Your task to perform on an android device: open app "Grab" (install if not already installed) and go to login screen Image 0: 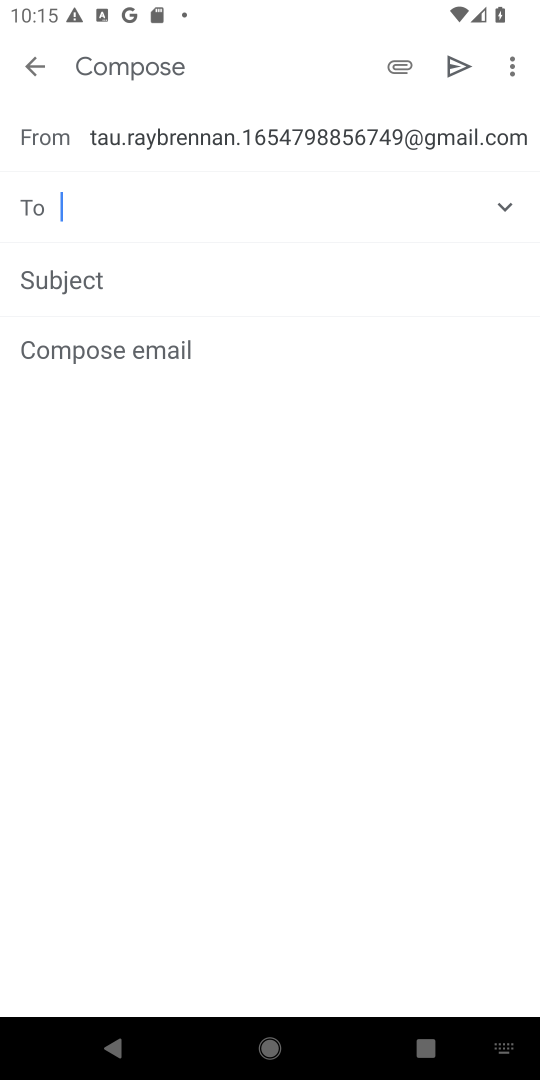
Step 0: press home button
Your task to perform on an android device: open app "Grab" (install if not already installed) and go to login screen Image 1: 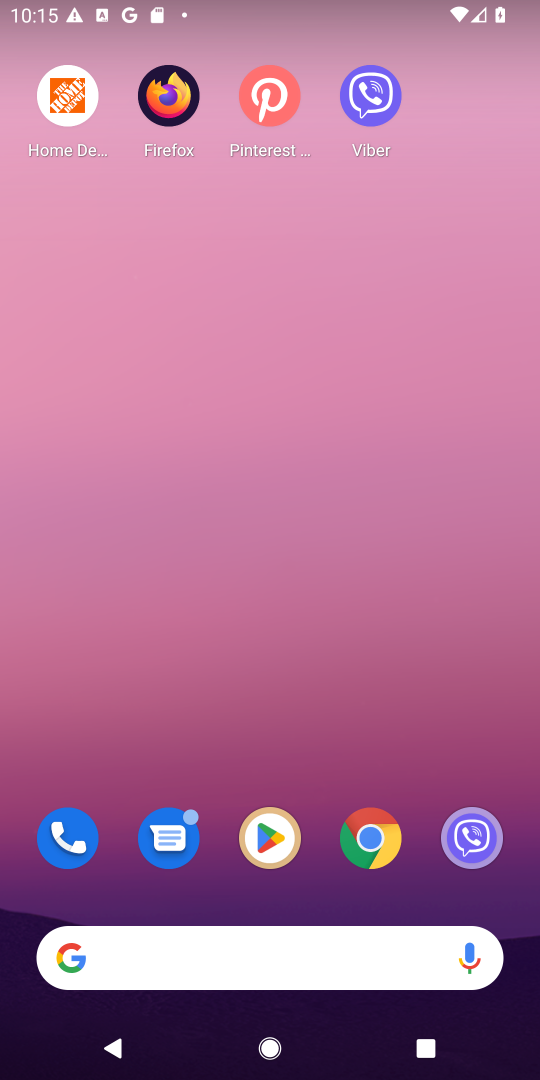
Step 1: click (254, 837)
Your task to perform on an android device: open app "Grab" (install if not already installed) and go to login screen Image 2: 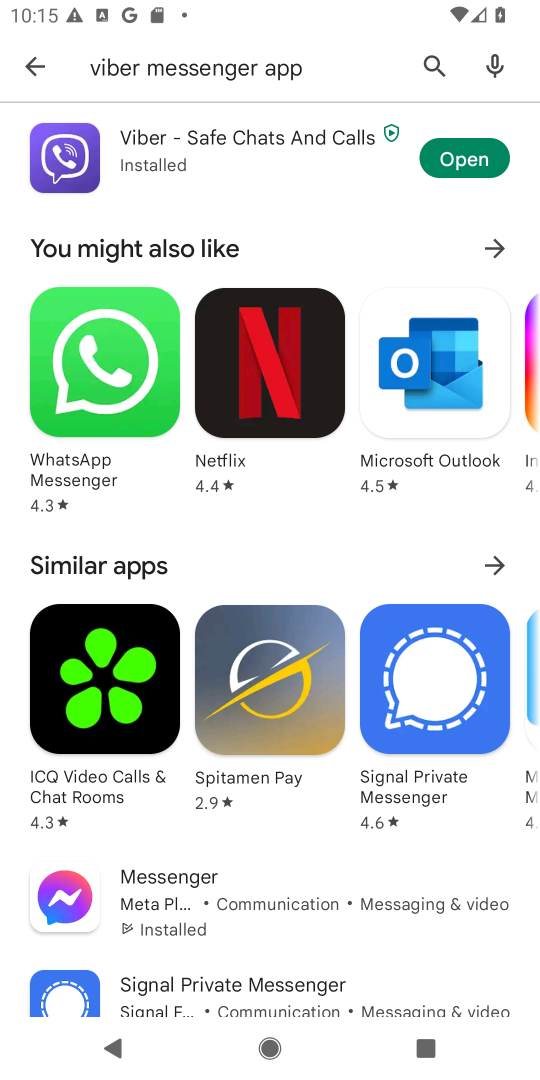
Step 2: click (438, 73)
Your task to perform on an android device: open app "Grab" (install if not already installed) and go to login screen Image 3: 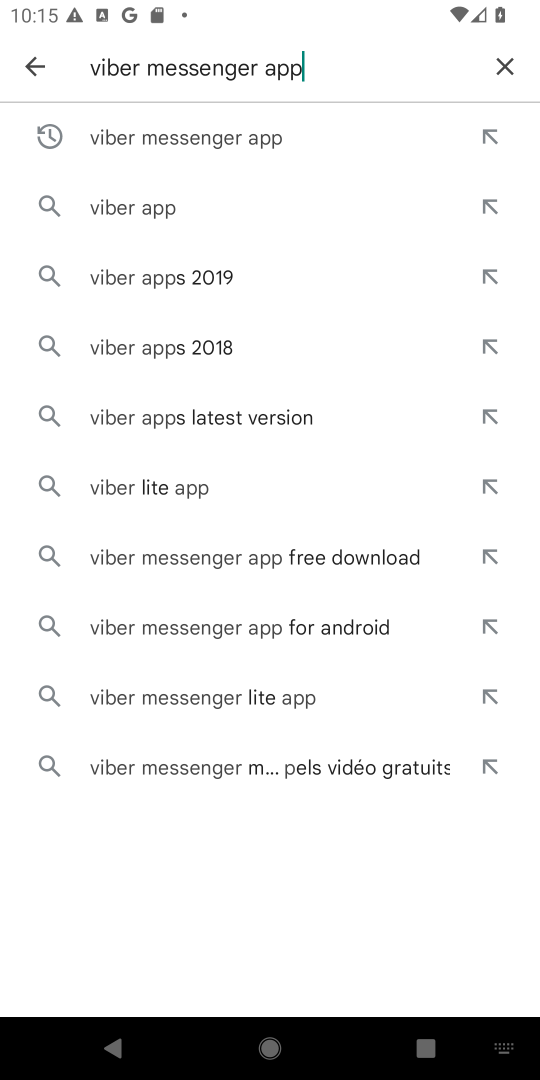
Step 3: click (502, 70)
Your task to perform on an android device: open app "Grab" (install if not already installed) and go to login screen Image 4: 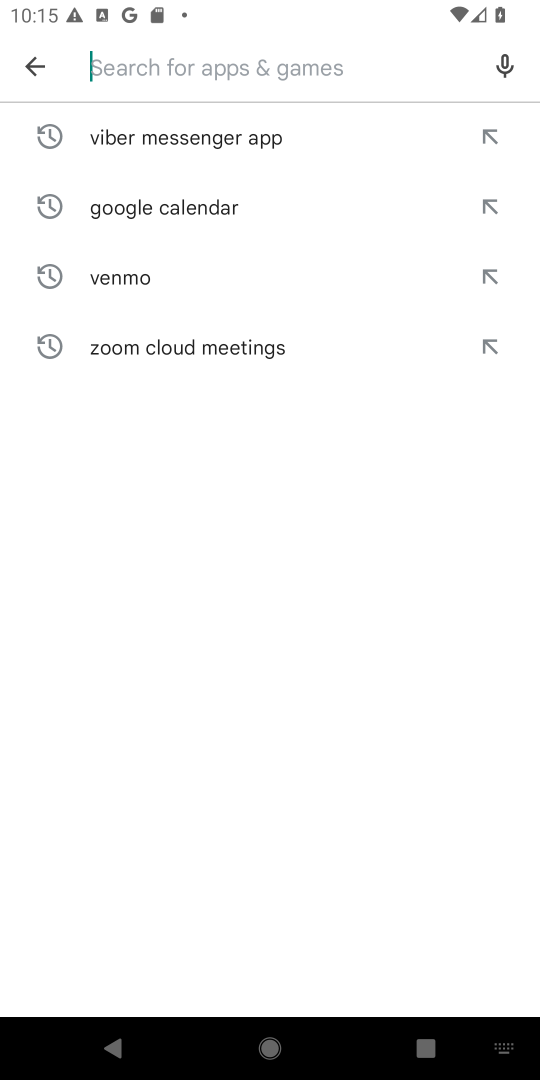
Step 4: type "Grab"
Your task to perform on an android device: open app "Grab" (install if not already installed) and go to login screen Image 5: 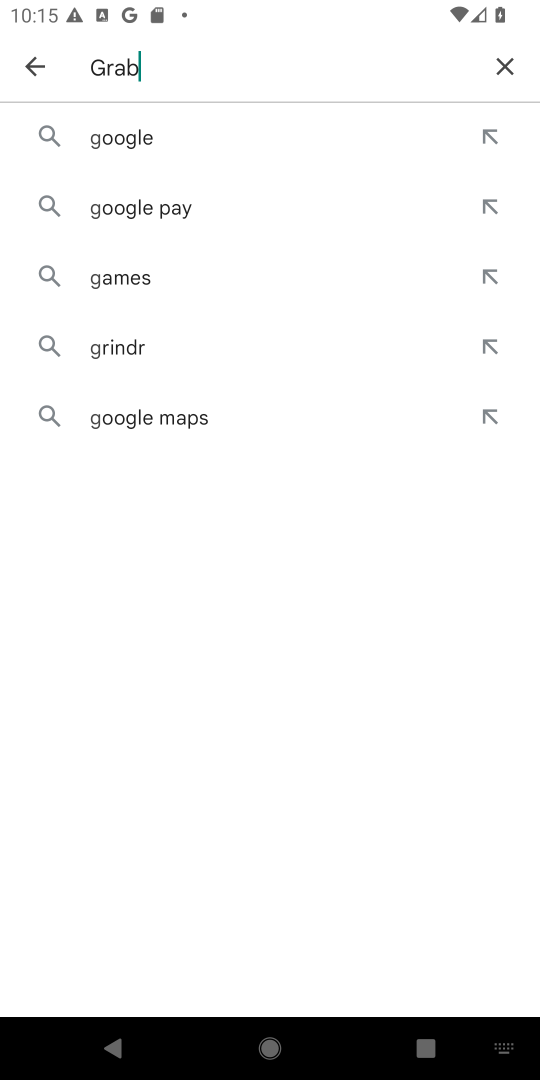
Step 5: type ""
Your task to perform on an android device: open app "Grab" (install if not already installed) and go to login screen Image 6: 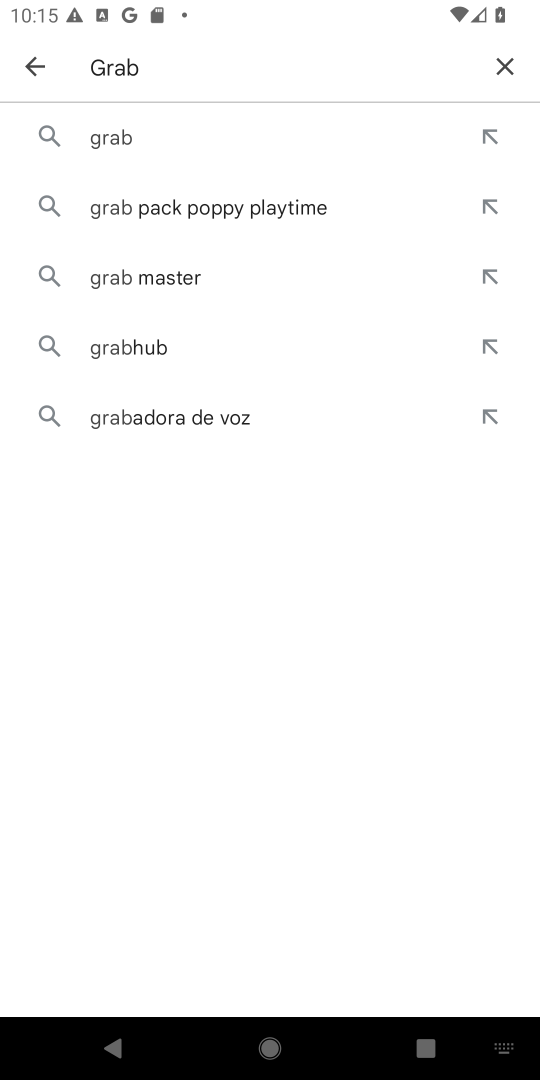
Step 6: click (121, 148)
Your task to perform on an android device: open app "Grab" (install if not already installed) and go to login screen Image 7: 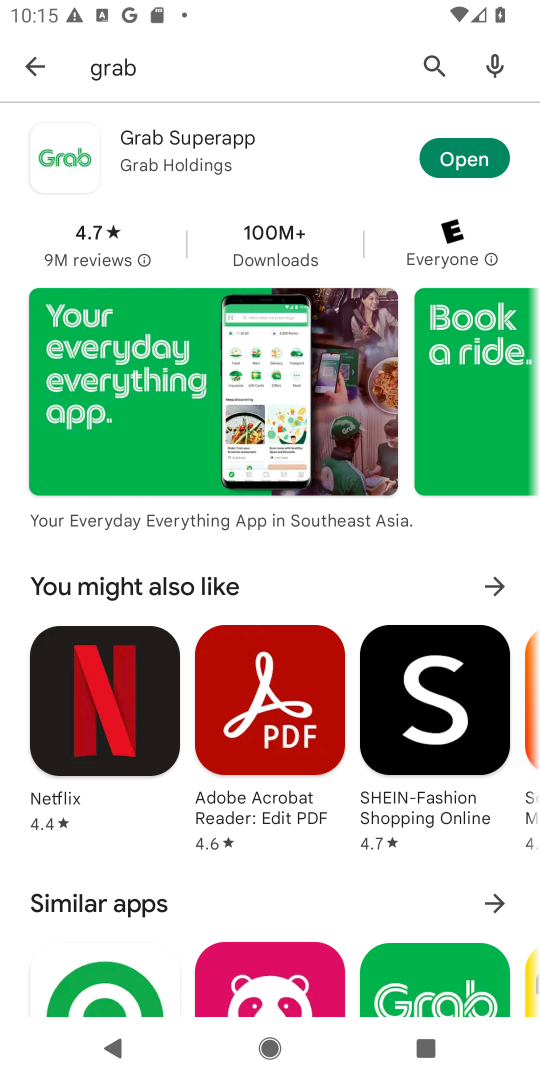
Step 7: click (460, 158)
Your task to perform on an android device: open app "Grab" (install if not already installed) and go to login screen Image 8: 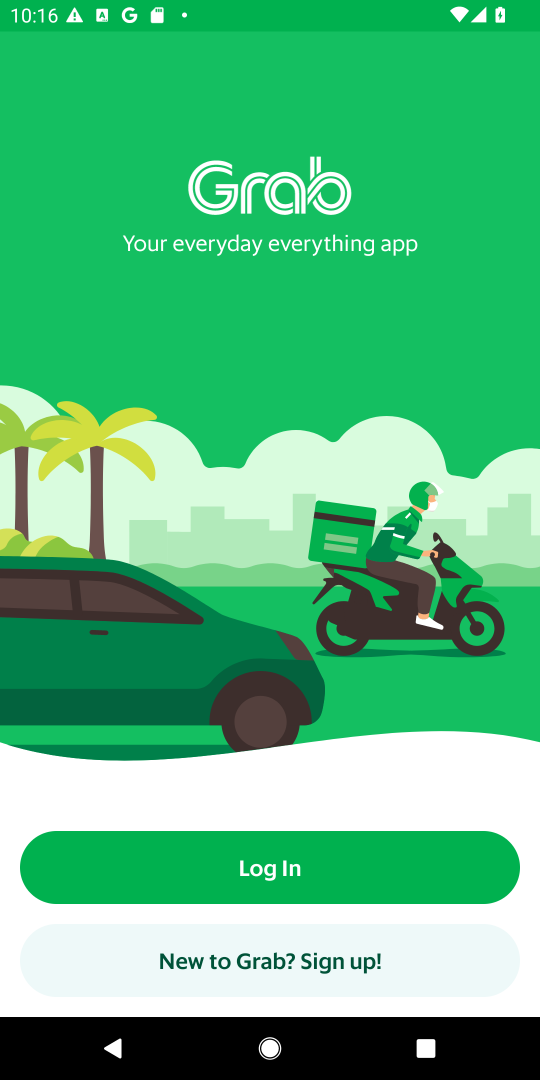
Step 8: task complete